Your task to perform on an android device: Search for vegetarian restaurants on Maps Image 0: 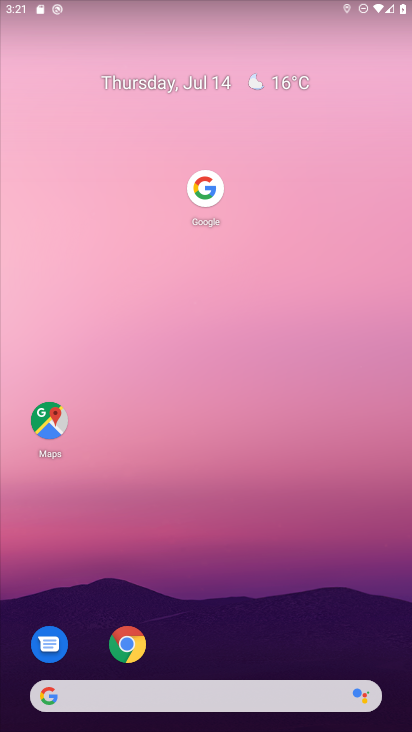
Step 0: click (41, 428)
Your task to perform on an android device: Search for vegetarian restaurants on Maps Image 1: 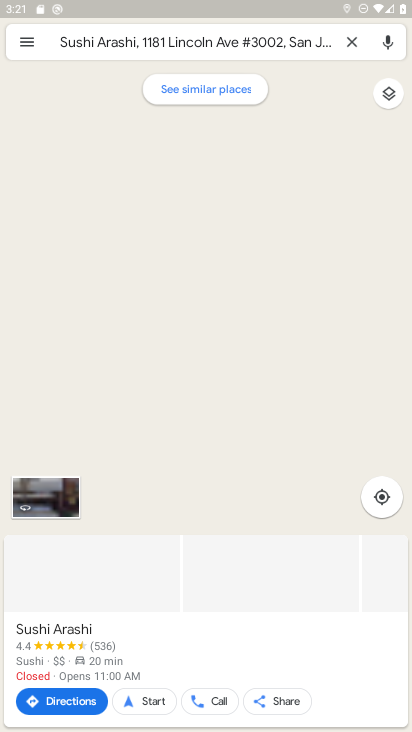
Step 1: click (350, 46)
Your task to perform on an android device: Search for vegetarian restaurants on Maps Image 2: 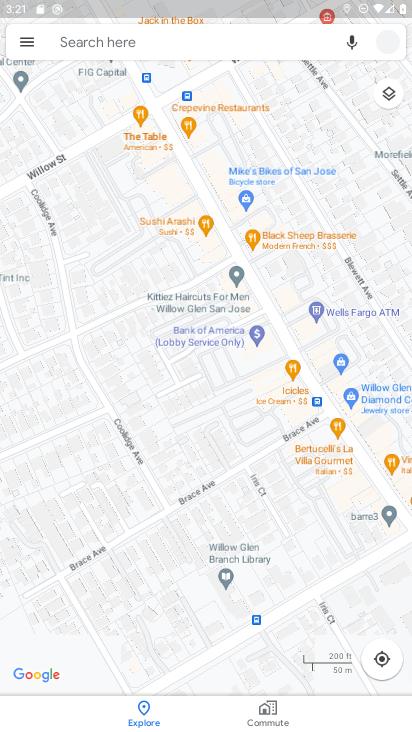
Step 2: click (256, 34)
Your task to perform on an android device: Search for vegetarian restaurants on Maps Image 3: 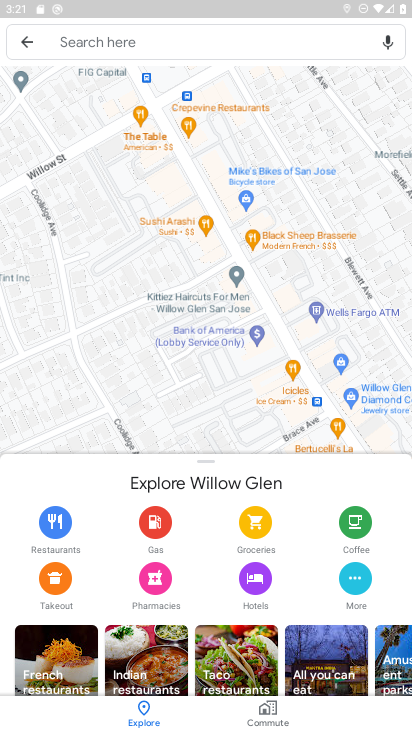
Step 3: click (147, 46)
Your task to perform on an android device: Search for vegetarian restaurants on Maps Image 4: 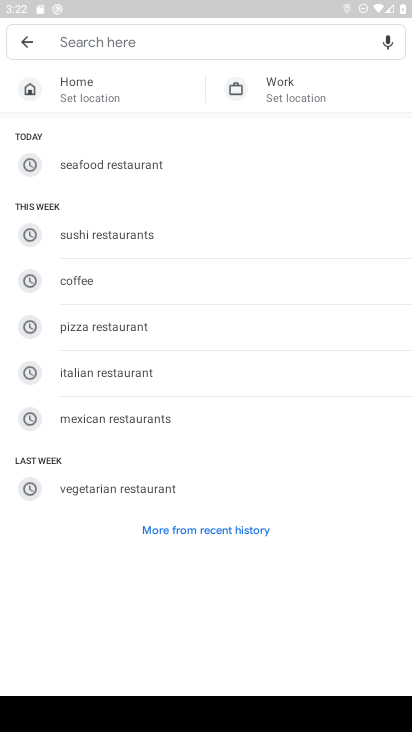
Step 4: type "vegetarian restaurants"
Your task to perform on an android device: Search for vegetarian restaurants on Maps Image 5: 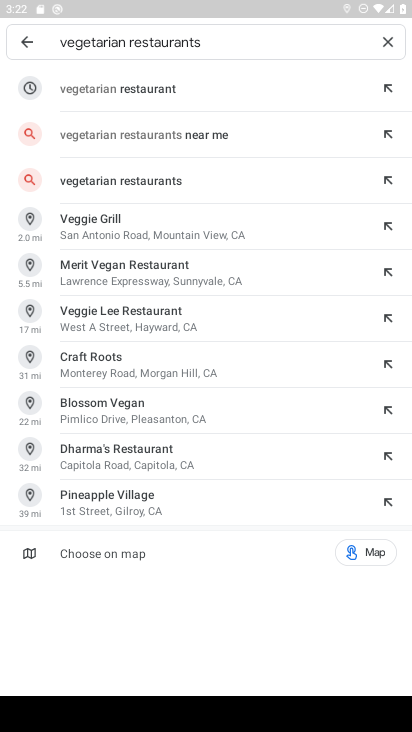
Step 5: click (185, 85)
Your task to perform on an android device: Search for vegetarian restaurants on Maps Image 6: 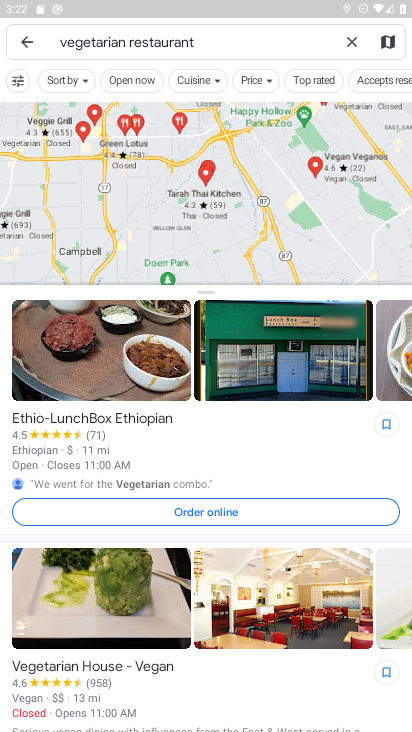
Step 6: task complete